Your task to perform on an android device: Open settings Image 0: 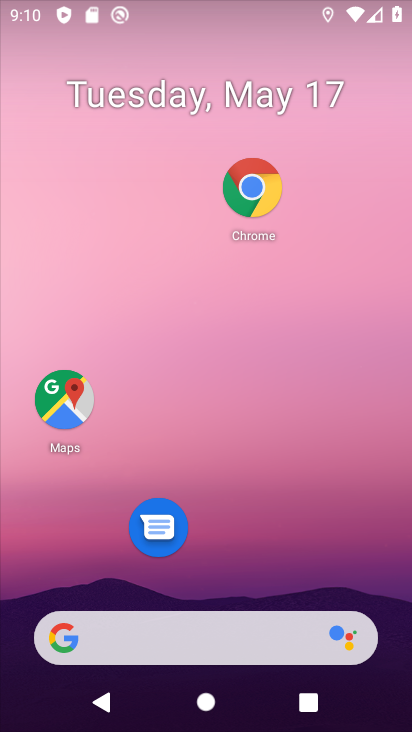
Step 0: drag from (319, 557) to (308, 135)
Your task to perform on an android device: Open settings Image 1: 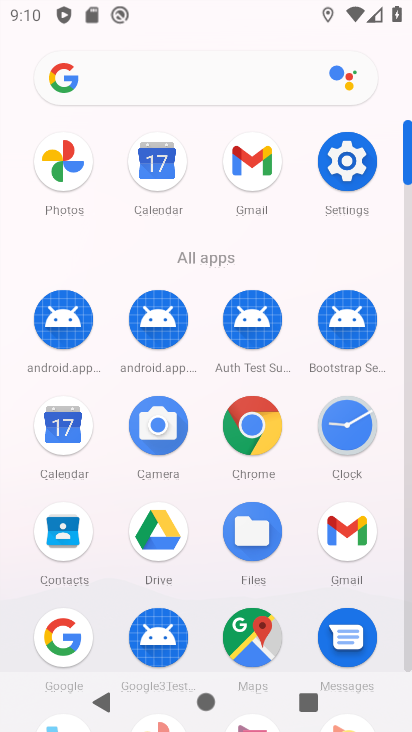
Step 1: click (344, 190)
Your task to perform on an android device: Open settings Image 2: 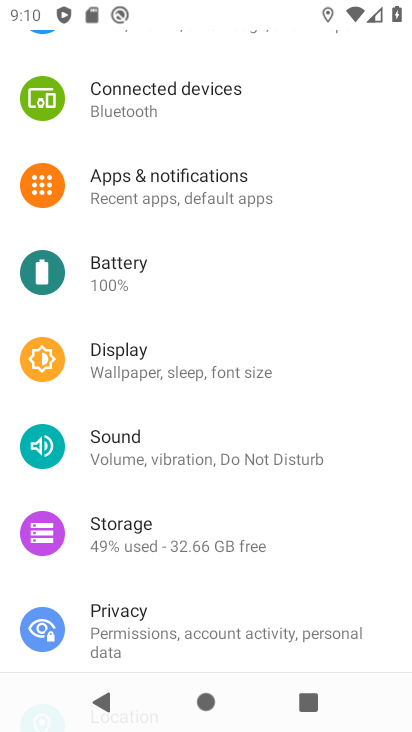
Step 2: drag from (237, 247) to (194, 547)
Your task to perform on an android device: Open settings Image 3: 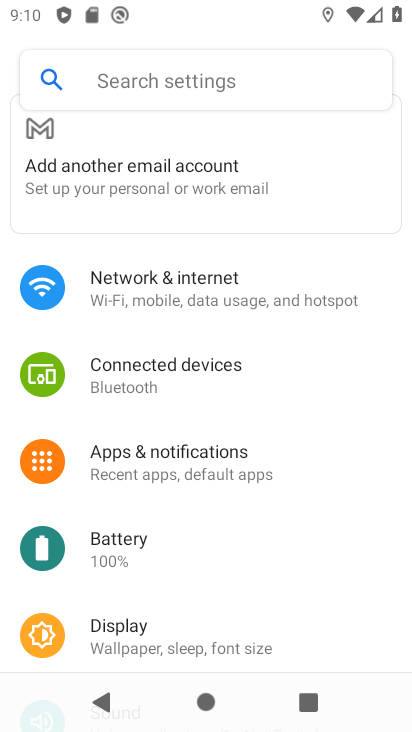
Step 3: click (194, 525)
Your task to perform on an android device: Open settings Image 4: 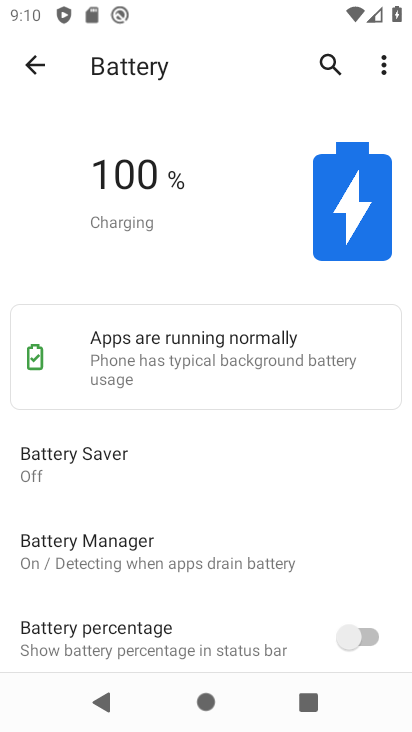
Step 4: task complete